Your task to perform on an android device: see creations saved in the google photos Image 0: 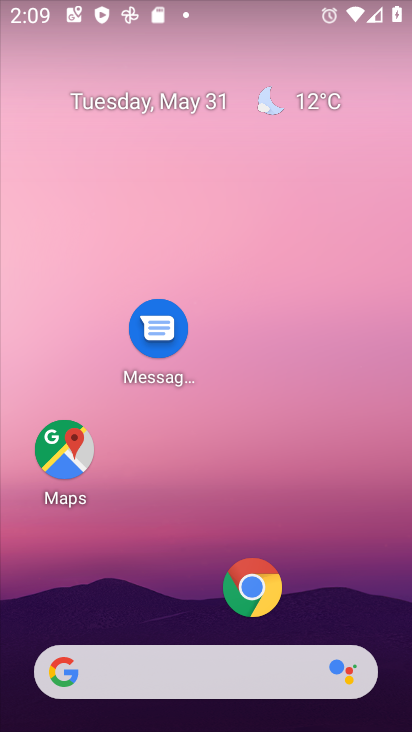
Step 0: click (246, 99)
Your task to perform on an android device: see creations saved in the google photos Image 1: 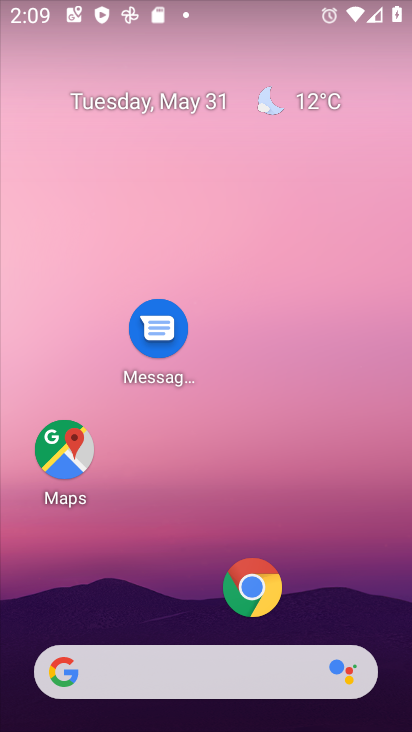
Step 1: drag from (197, 624) to (208, 232)
Your task to perform on an android device: see creations saved in the google photos Image 2: 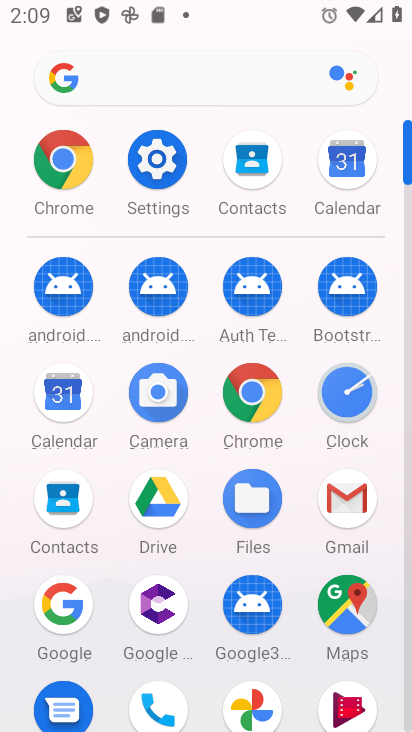
Step 2: drag from (189, 633) to (135, 84)
Your task to perform on an android device: see creations saved in the google photos Image 3: 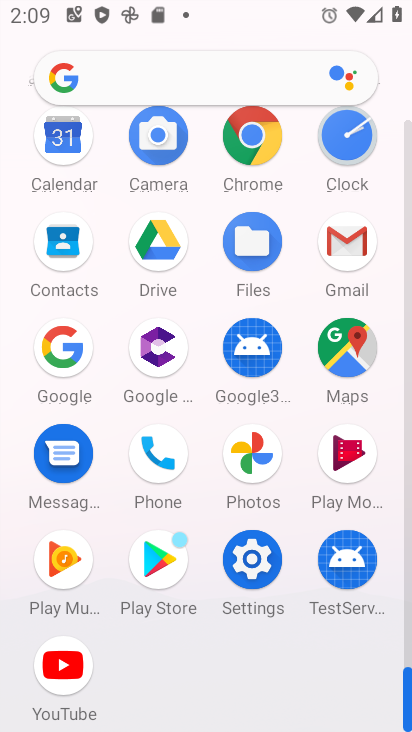
Step 3: click (246, 458)
Your task to perform on an android device: see creations saved in the google photos Image 4: 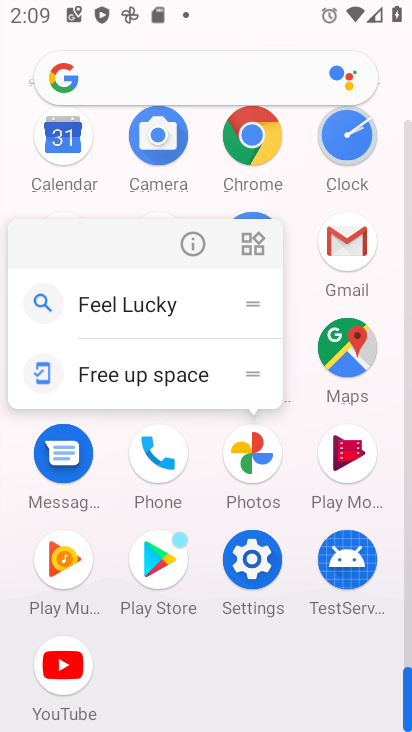
Step 4: click (182, 256)
Your task to perform on an android device: see creations saved in the google photos Image 5: 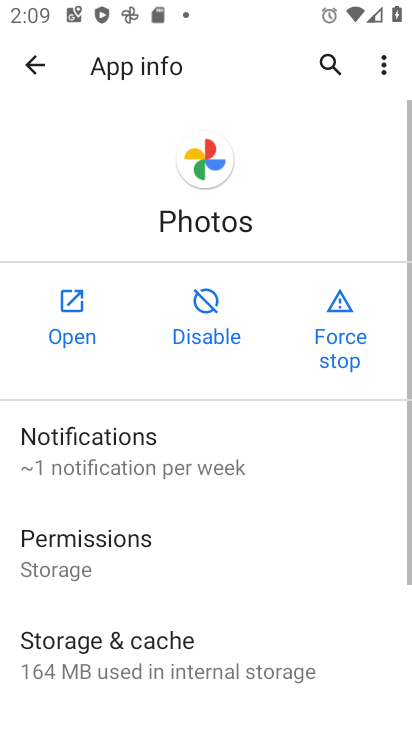
Step 5: click (71, 343)
Your task to perform on an android device: see creations saved in the google photos Image 6: 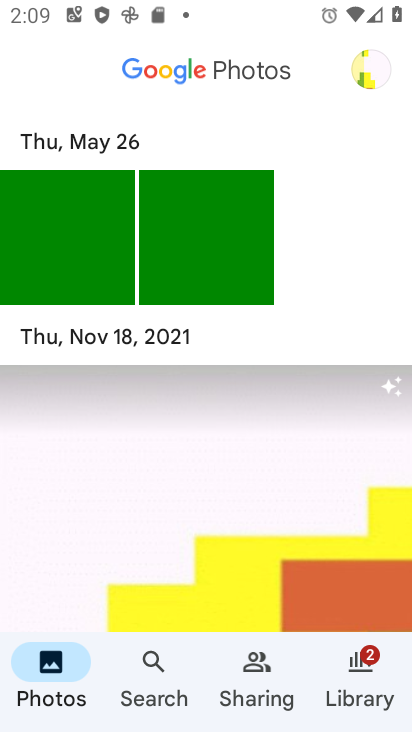
Step 6: click (158, 664)
Your task to perform on an android device: see creations saved in the google photos Image 7: 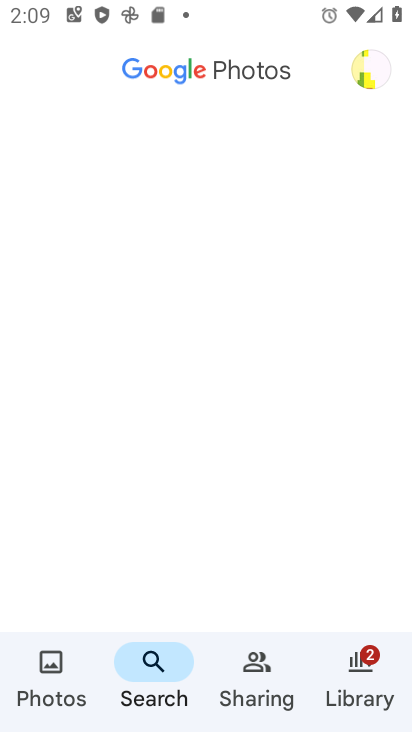
Step 7: drag from (201, 517) to (178, 216)
Your task to perform on an android device: see creations saved in the google photos Image 8: 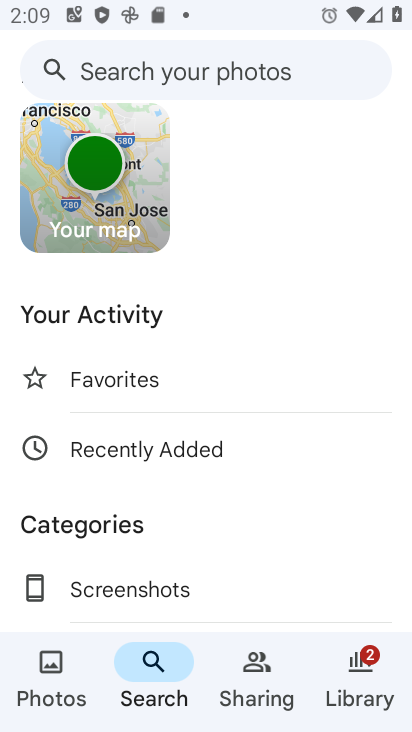
Step 8: drag from (183, 543) to (198, 106)
Your task to perform on an android device: see creations saved in the google photos Image 9: 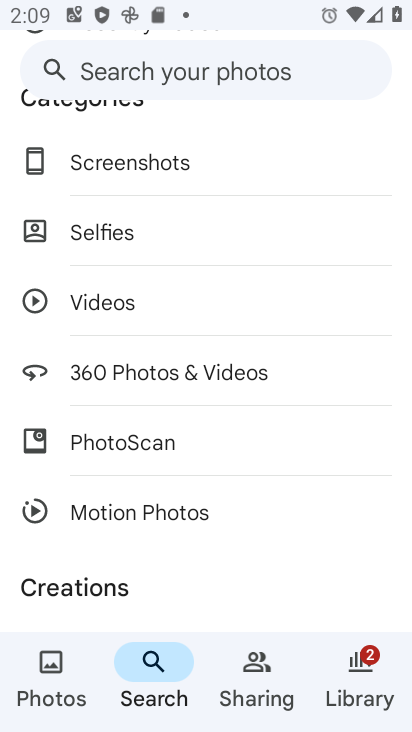
Step 9: drag from (203, 508) to (178, 154)
Your task to perform on an android device: see creations saved in the google photos Image 10: 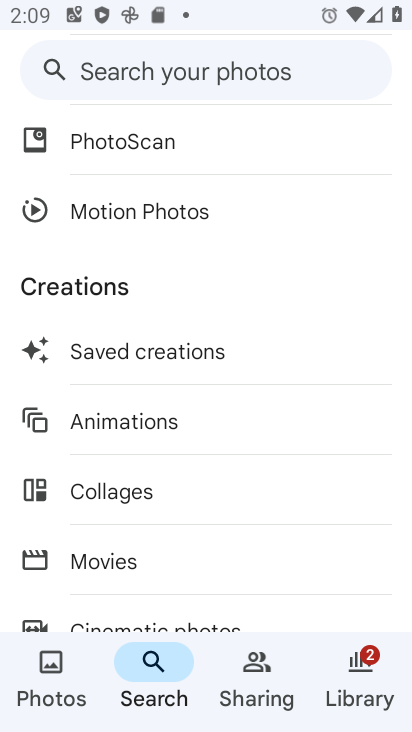
Step 10: click (119, 354)
Your task to perform on an android device: see creations saved in the google photos Image 11: 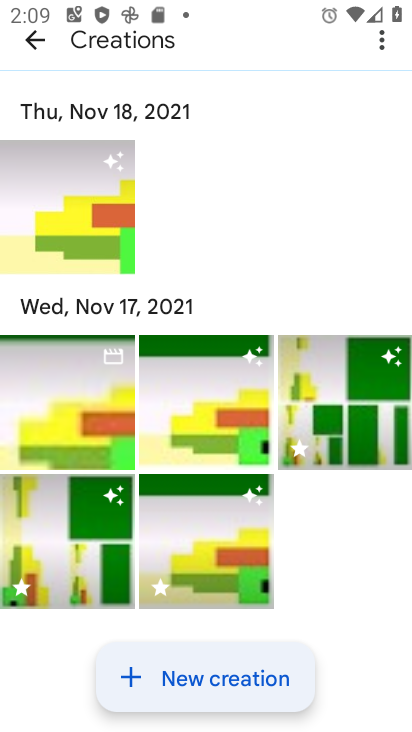
Step 11: drag from (185, 567) to (196, 78)
Your task to perform on an android device: see creations saved in the google photos Image 12: 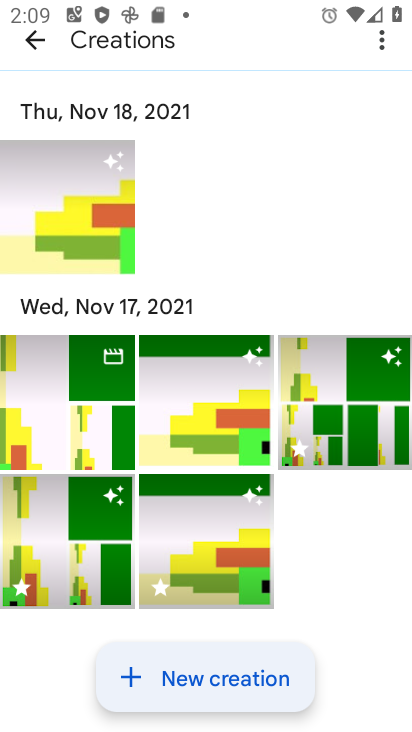
Step 12: drag from (176, 544) to (199, 247)
Your task to perform on an android device: see creations saved in the google photos Image 13: 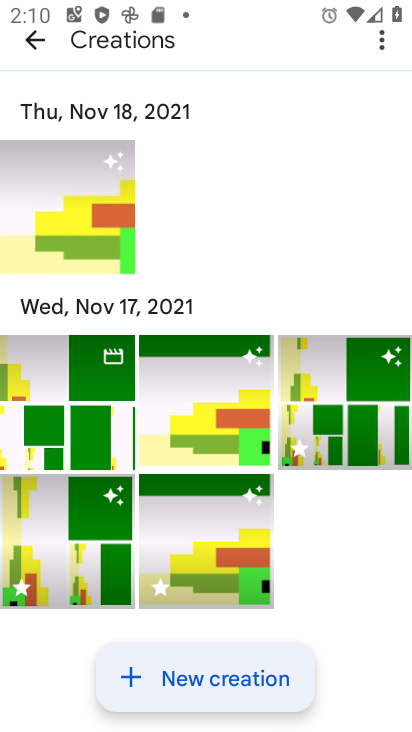
Step 13: click (105, 408)
Your task to perform on an android device: see creations saved in the google photos Image 14: 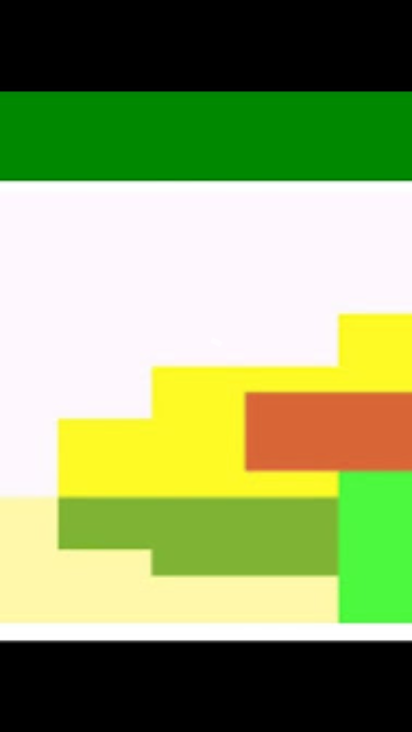
Step 14: task complete